Your task to perform on an android device: turn on wifi Image 0: 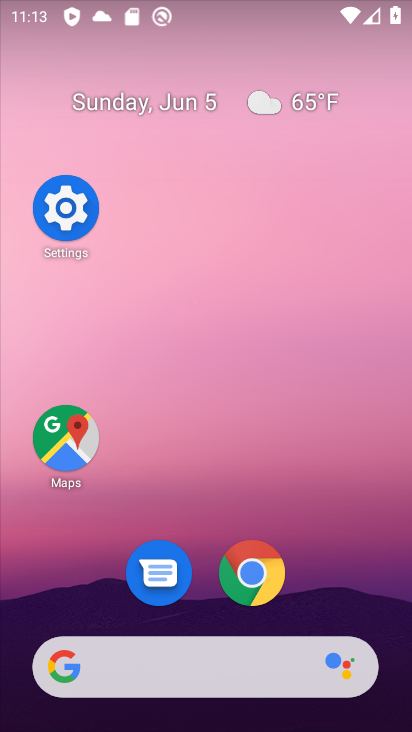
Step 0: click (84, 209)
Your task to perform on an android device: turn on wifi Image 1: 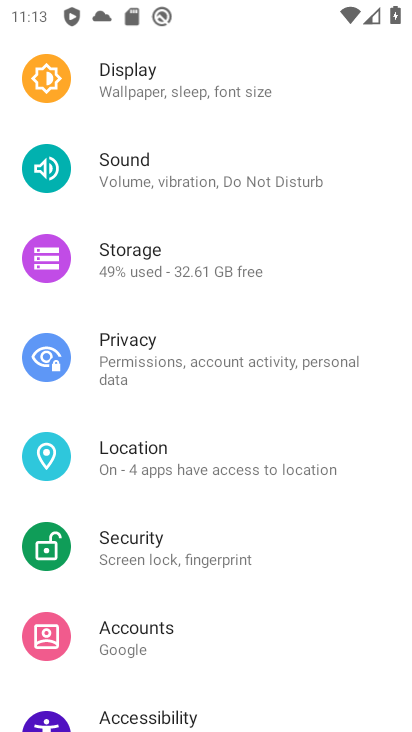
Step 1: drag from (288, 94) to (330, 512)
Your task to perform on an android device: turn on wifi Image 2: 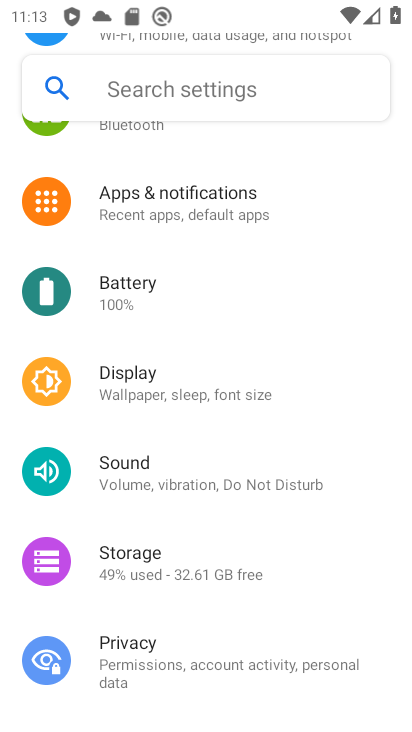
Step 2: drag from (310, 182) to (292, 556)
Your task to perform on an android device: turn on wifi Image 3: 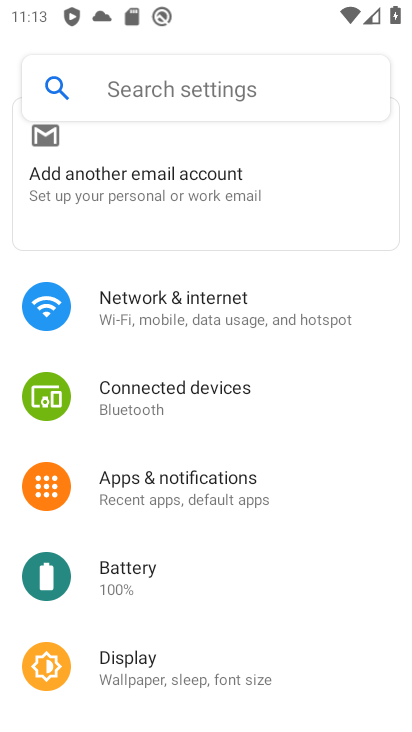
Step 3: click (247, 300)
Your task to perform on an android device: turn on wifi Image 4: 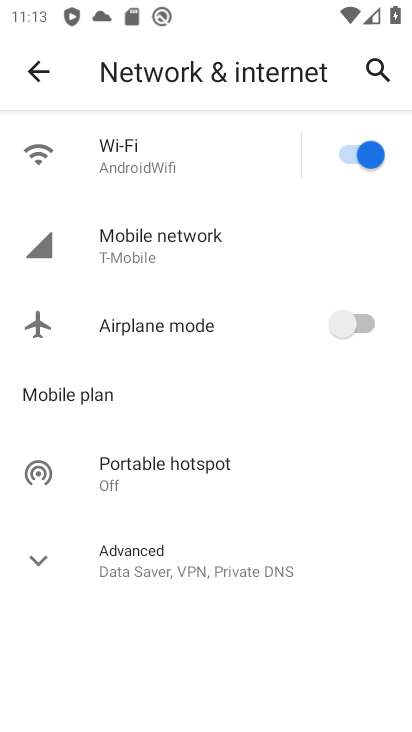
Step 4: task complete